Your task to perform on an android device: What's the news this week? Image 0: 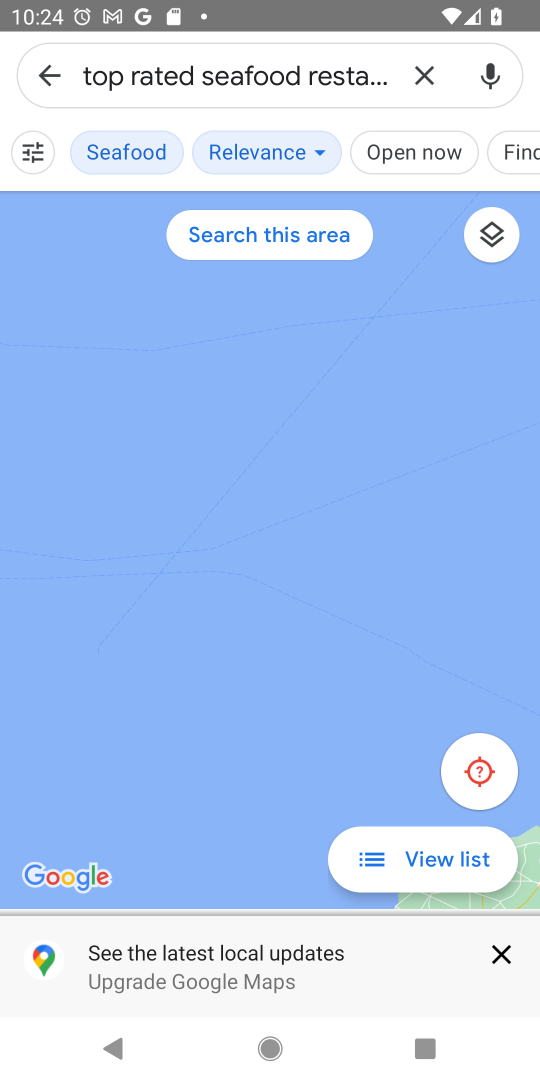
Step 0: press home button
Your task to perform on an android device: What's the news this week? Image 1: 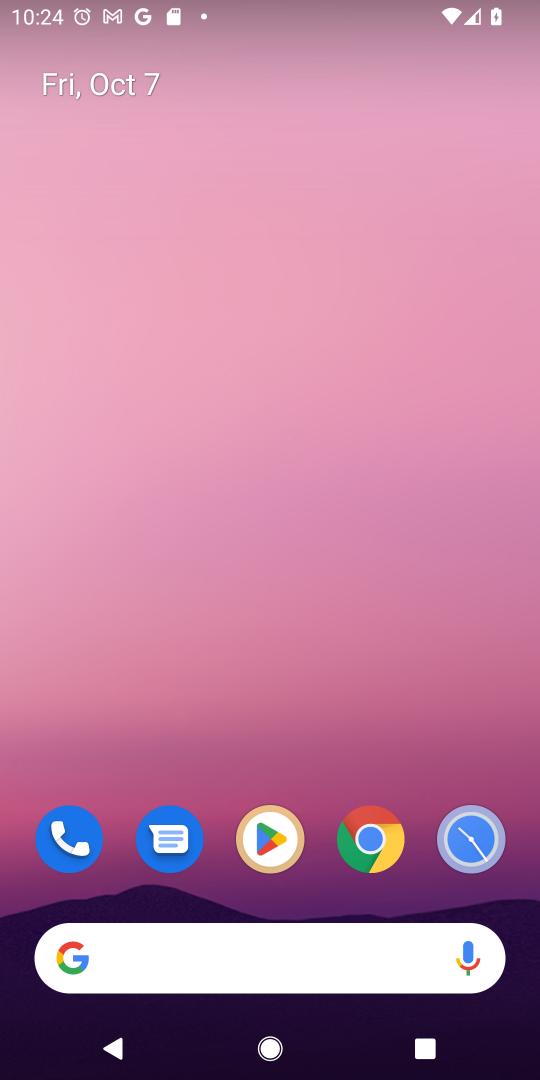
Step 1: click (372, 840)
Your task to perform on an android device: What's the news this week? Image 2: 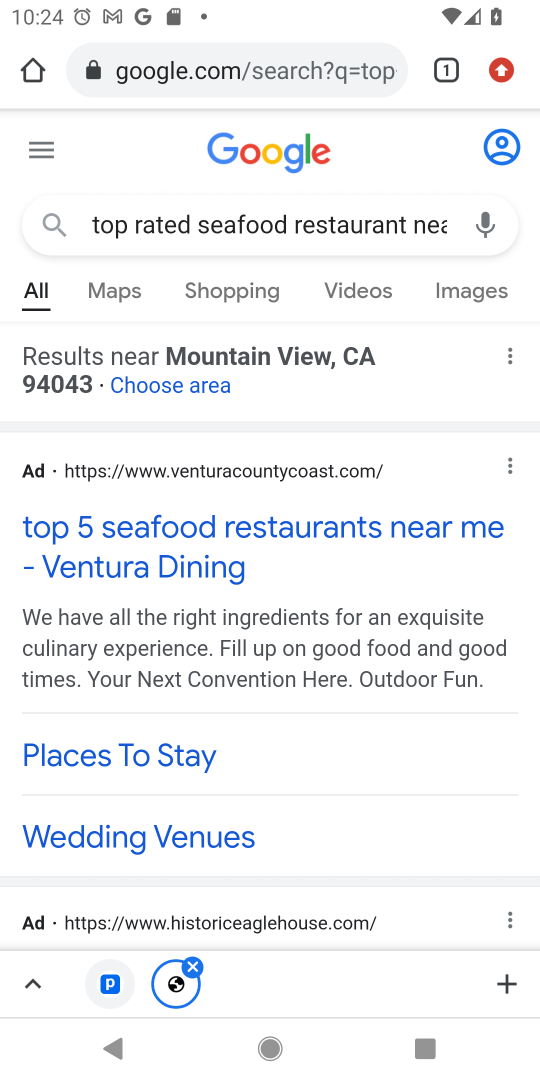
Step 2: click (228, 78)
Your task to perform on an android device: What's the news this week? Image 3: 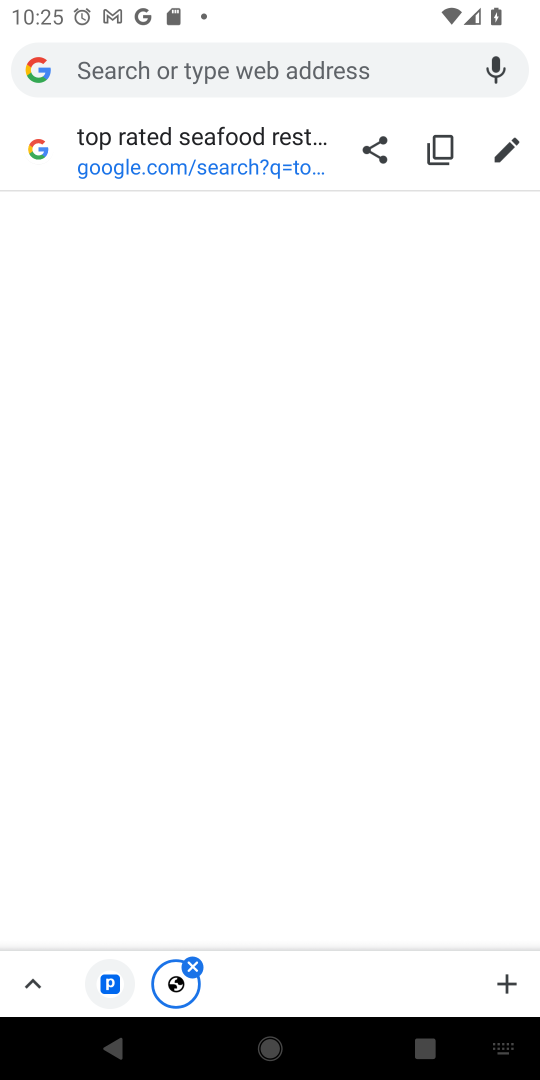
Step 3: type "whats the new this week"
Your task to perform on an android device: What's the news this week? Image 4: 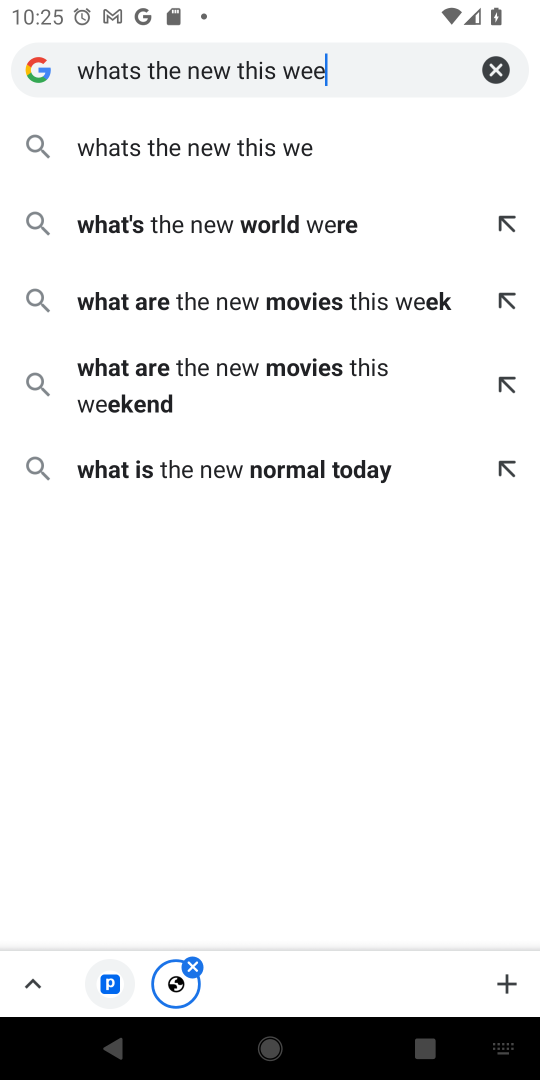
Step 4: type ""
Your task to perform on an android device: What's the news this week? Image 5: 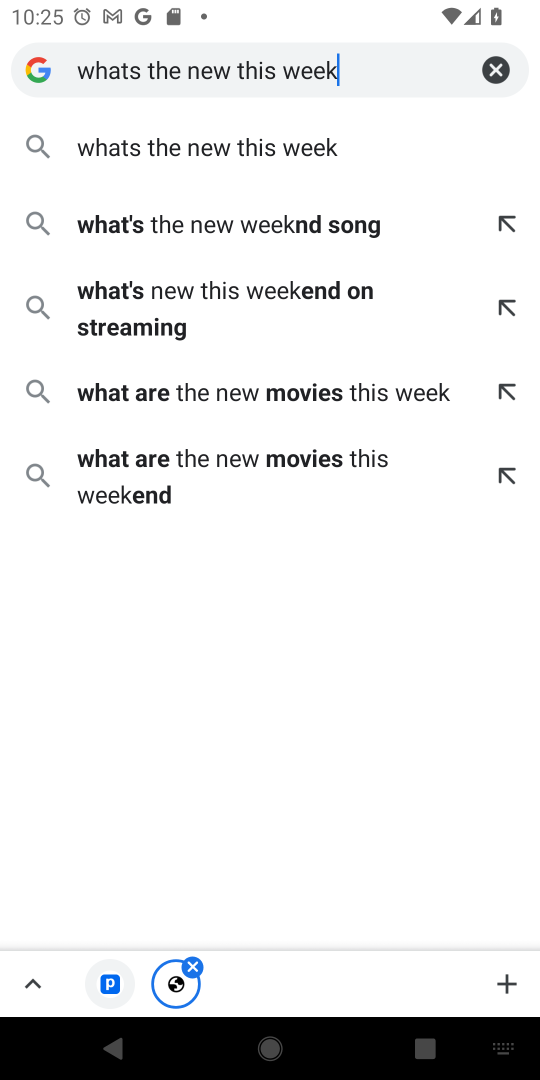
Step 5: click (301, 148)
Your task to perform on an android device: What's the news this week? Image 6: 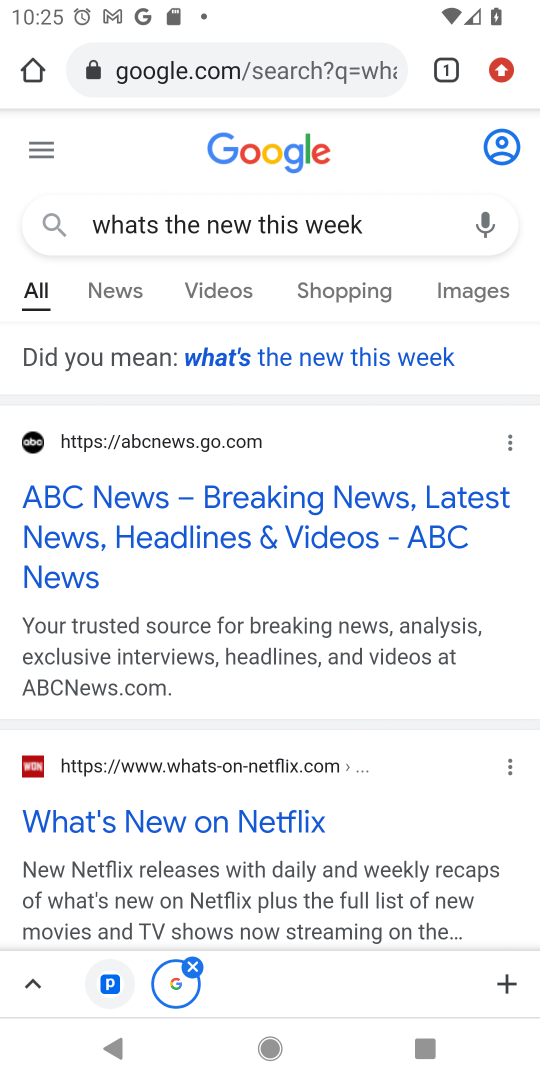
Step 6: click (234, 491)
Your task to perform on an android device: What's the news this week? Image 7: 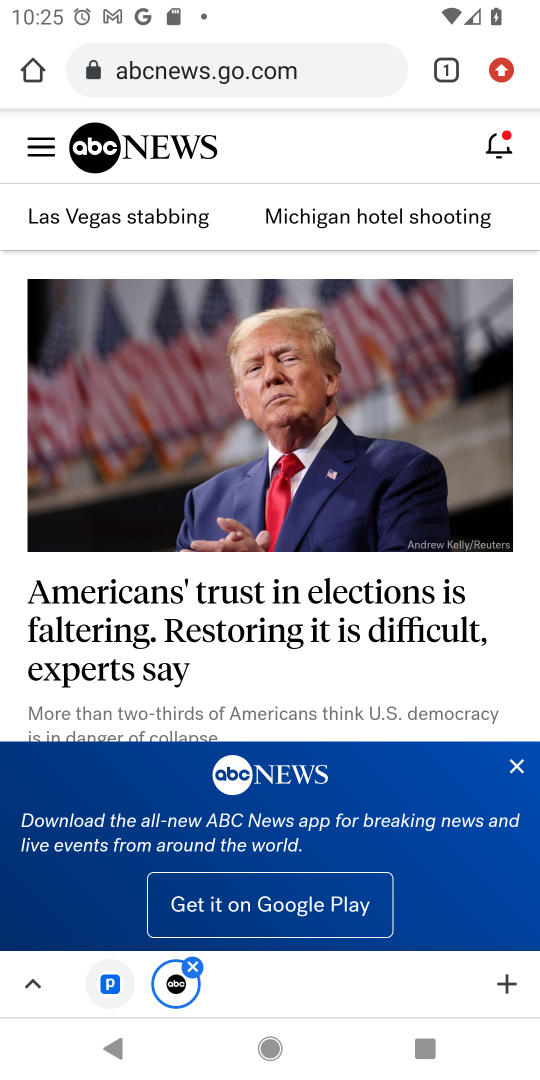
Step 7: drag from (172, 492) to (178, 300)
Your task to perform on an android device: What's the news this week? Image 8: 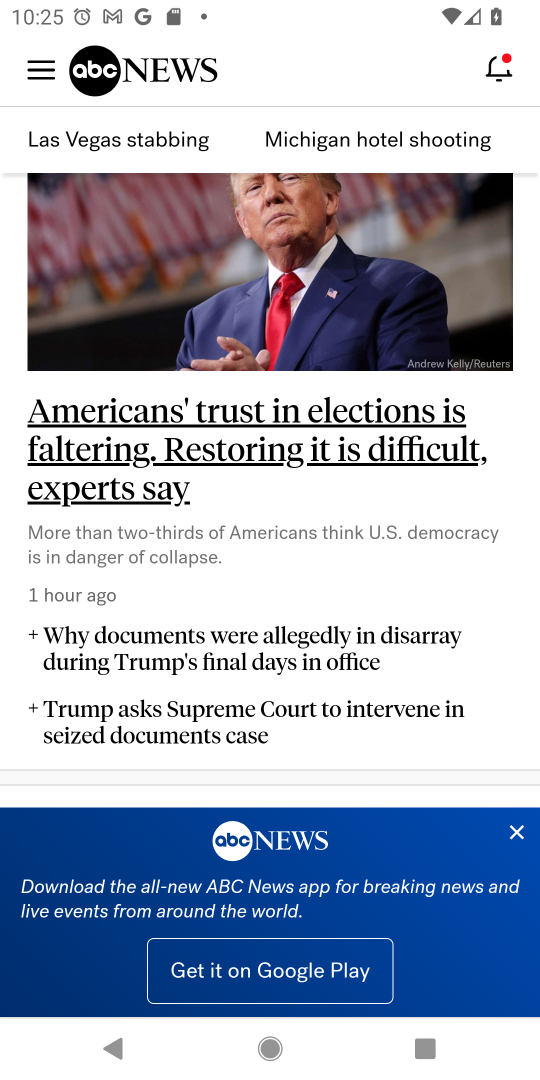
Step 8: drag from (354, 724) to (429, 211)
Your task to perform on an android device: What's the news this week? Image 9: 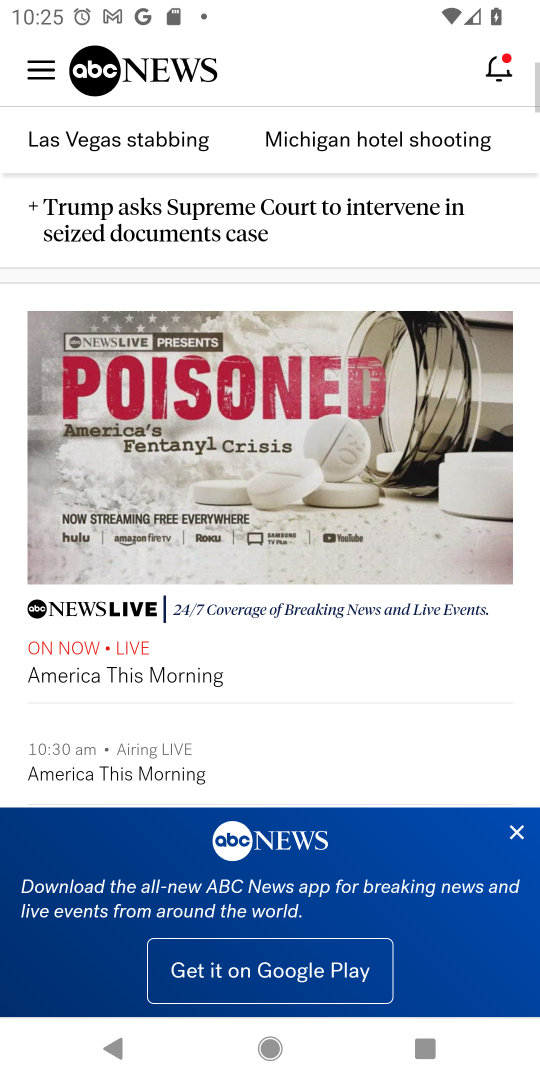
Step 9: drag from (316, 667) to (335, 174)
Your task to perform on an android device: What's the news this week? Image 10: 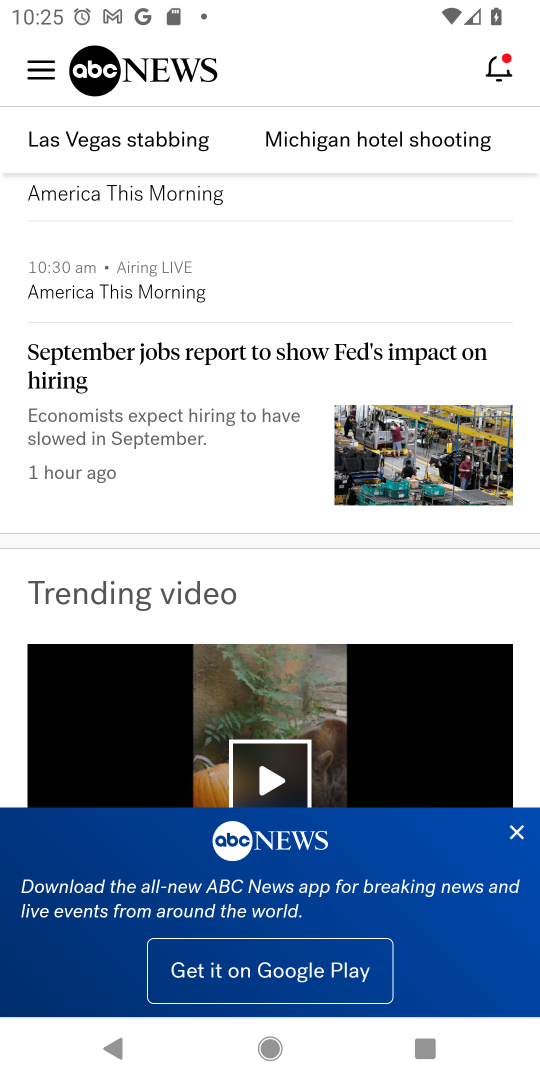
Step 10: drag from (259, 662) to (311, 333)
Your task to perform on an android device: What's the news this week? Image 11: 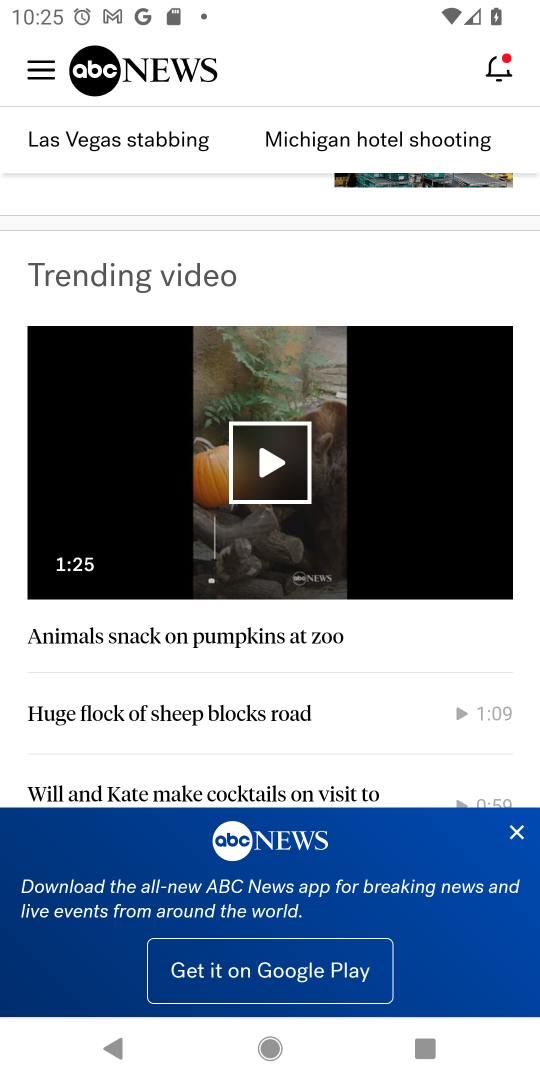
Step 11: drag from (367, 652) to (398, 143)
Your task to perform on an android device: What's the news this week? Image 12: 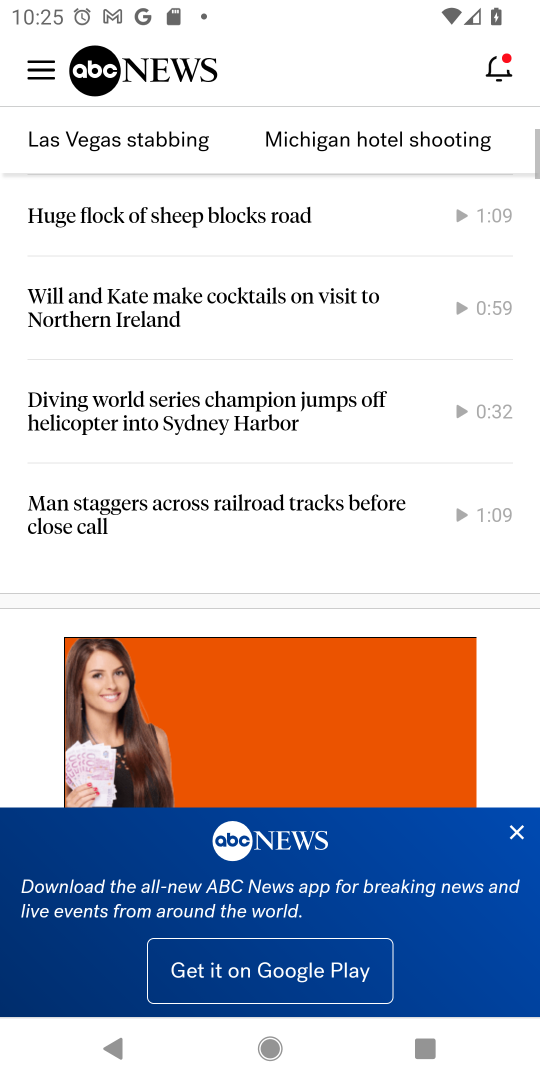
Step 12: drag from (260, 529) to (392, 33)
Your task to perform on an android device: What's the news this week? Image 13: 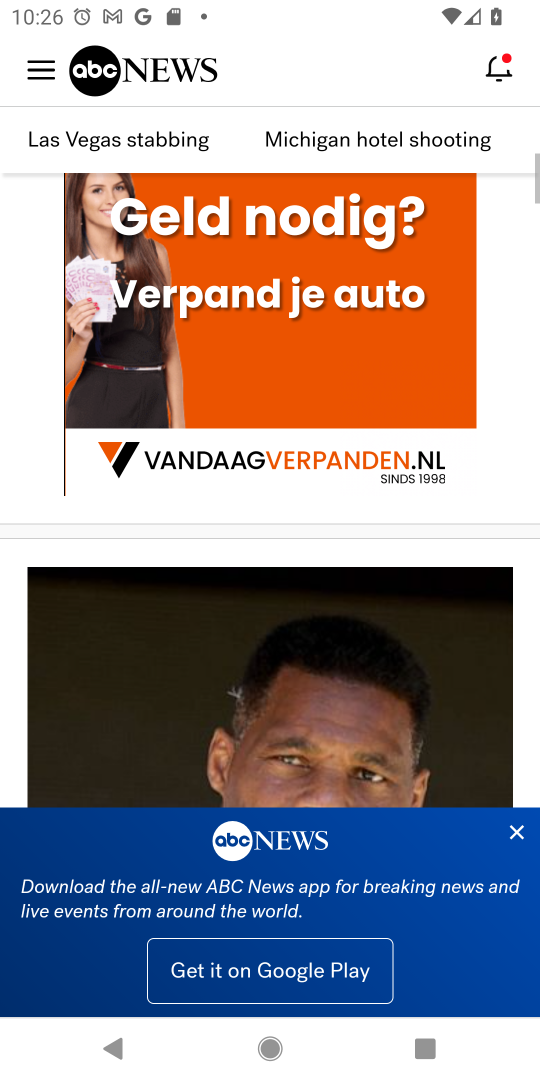
Step 13: drag from (272, 624) to (386, 105)
Your task to perform on an android device: What's the news this week? Image 14: 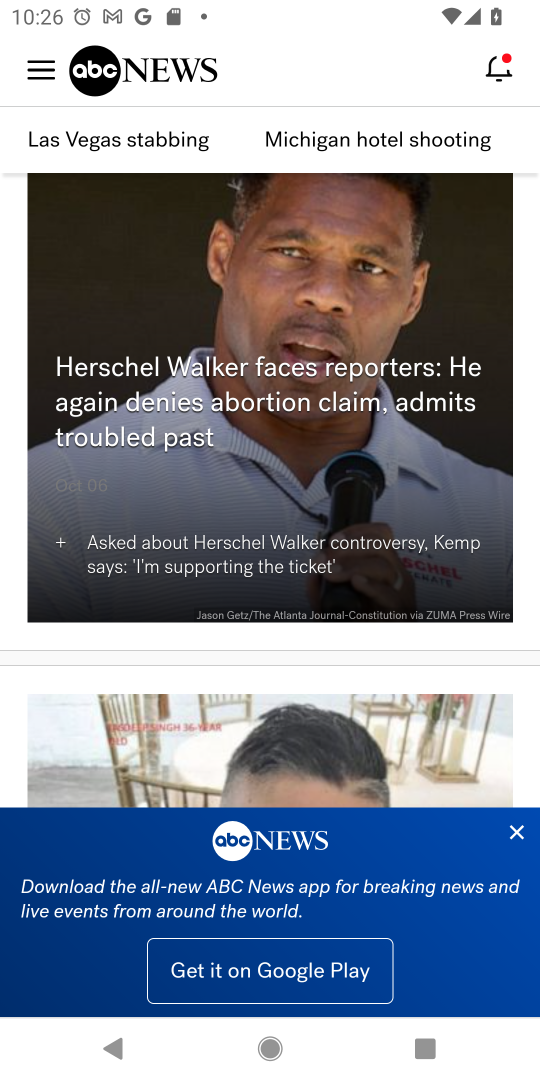
Step 14: click (520, 829)
Your task to perform on an android device: What's the news this week? Image 15: 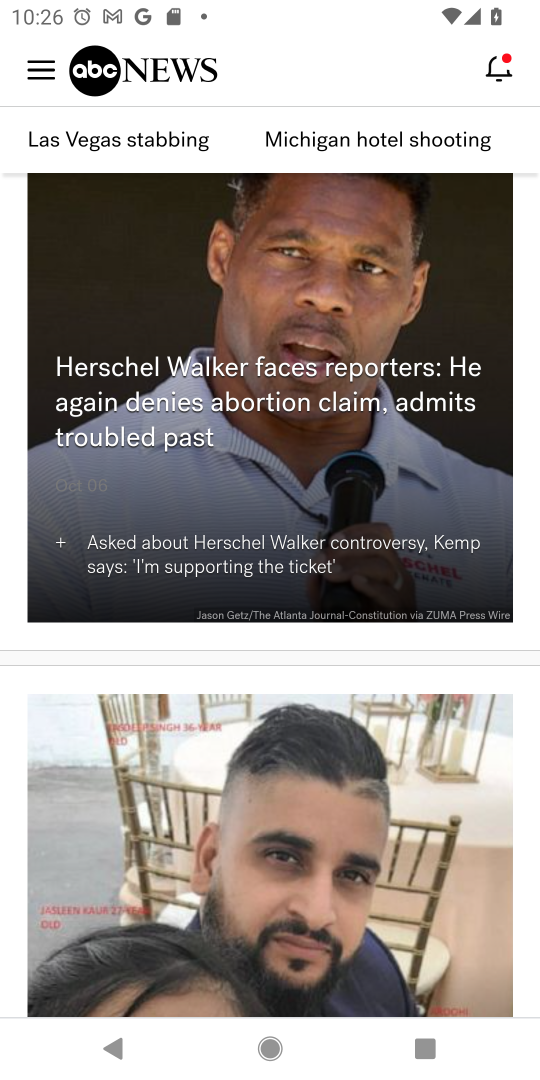
Step 15: task complete